Your task to perform on an android device: open wifi settings Image 0: 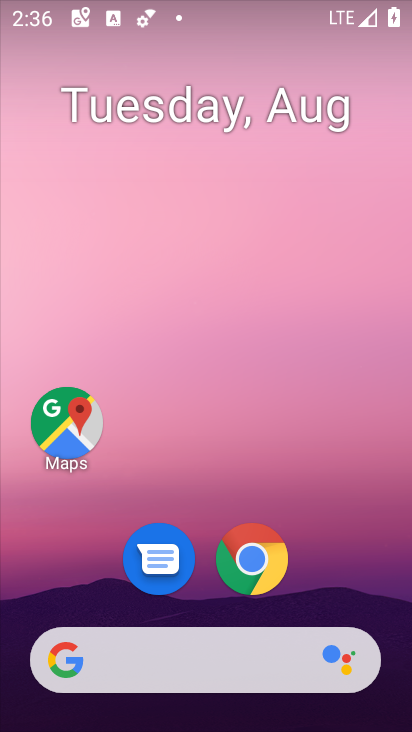
Step 0: drag from (208, 496) to (250, 164)
Your task to perform on an android device: open wifi settings Image 1: 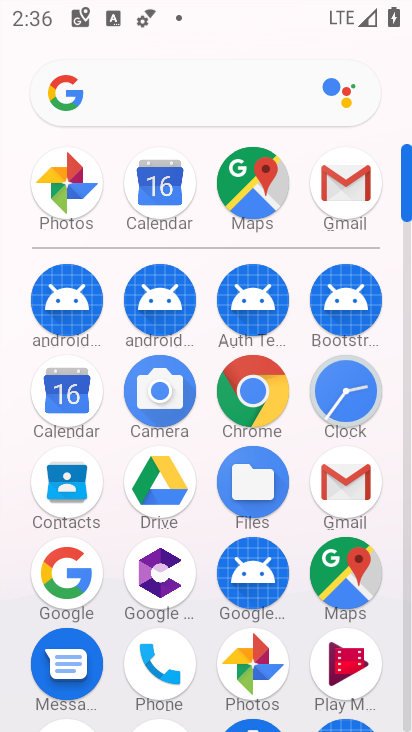
Step 1: drag from (192, 572) to (211, 270)
Your task to perform on an android device: open wifi settings Image 2: 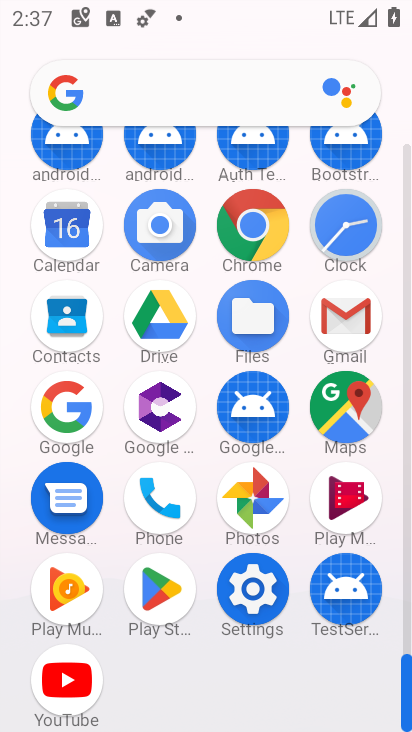
Step 2: click (259, 614)
Your task to perform on an android device: open wifi settings Image 3: 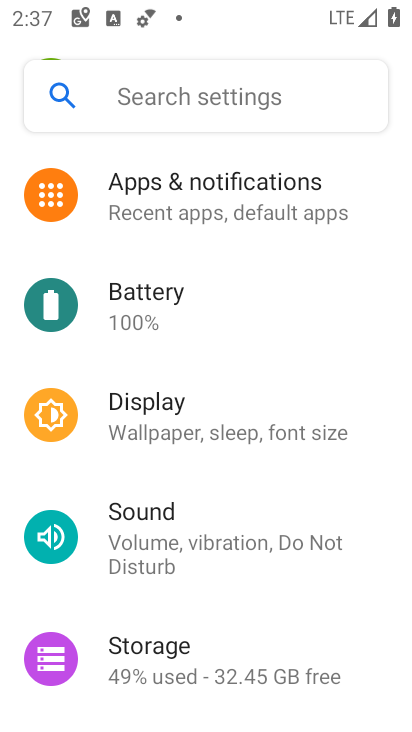
Step 3: drag from (228, 245) to (243, 658)
Your task to perform on an android device: open wifi settings Image 4: 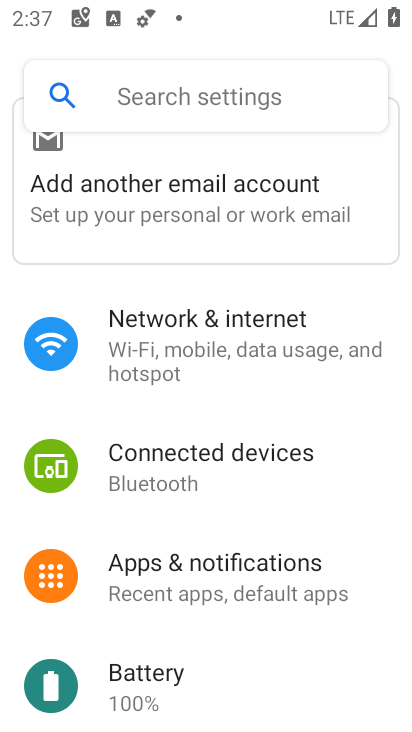
Step 4: click (234, 344)
Your task to perform on an android device: open wifi settings Image 5: 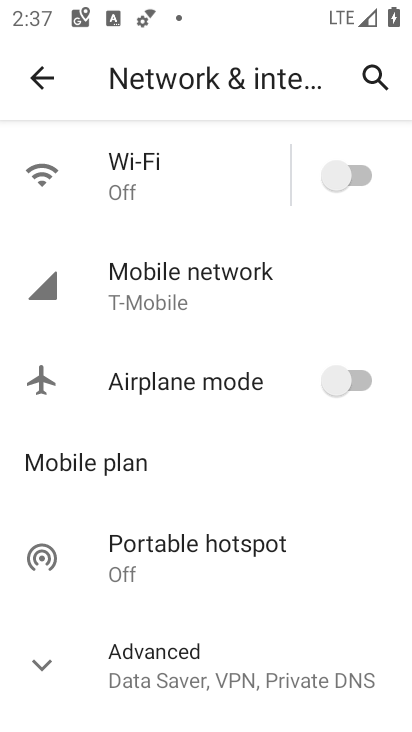
Step 5: click (203, 165)
Your task to perform on an android device: open wifi settings Image 6: 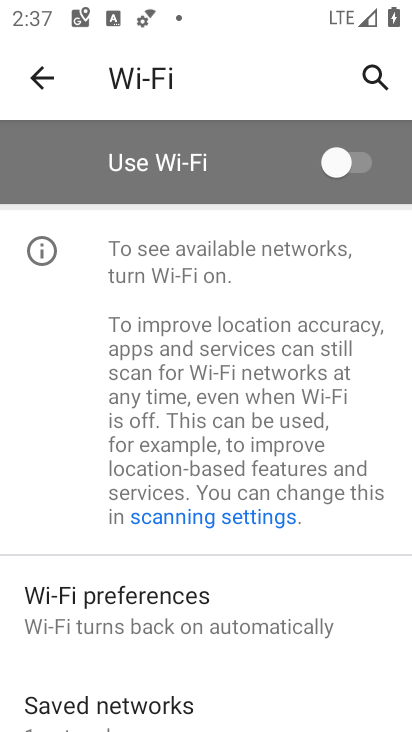
Step 6: task complete